Your task to perform on an android device: open app "Messenger Lite" (install if not already installed) Image 0: 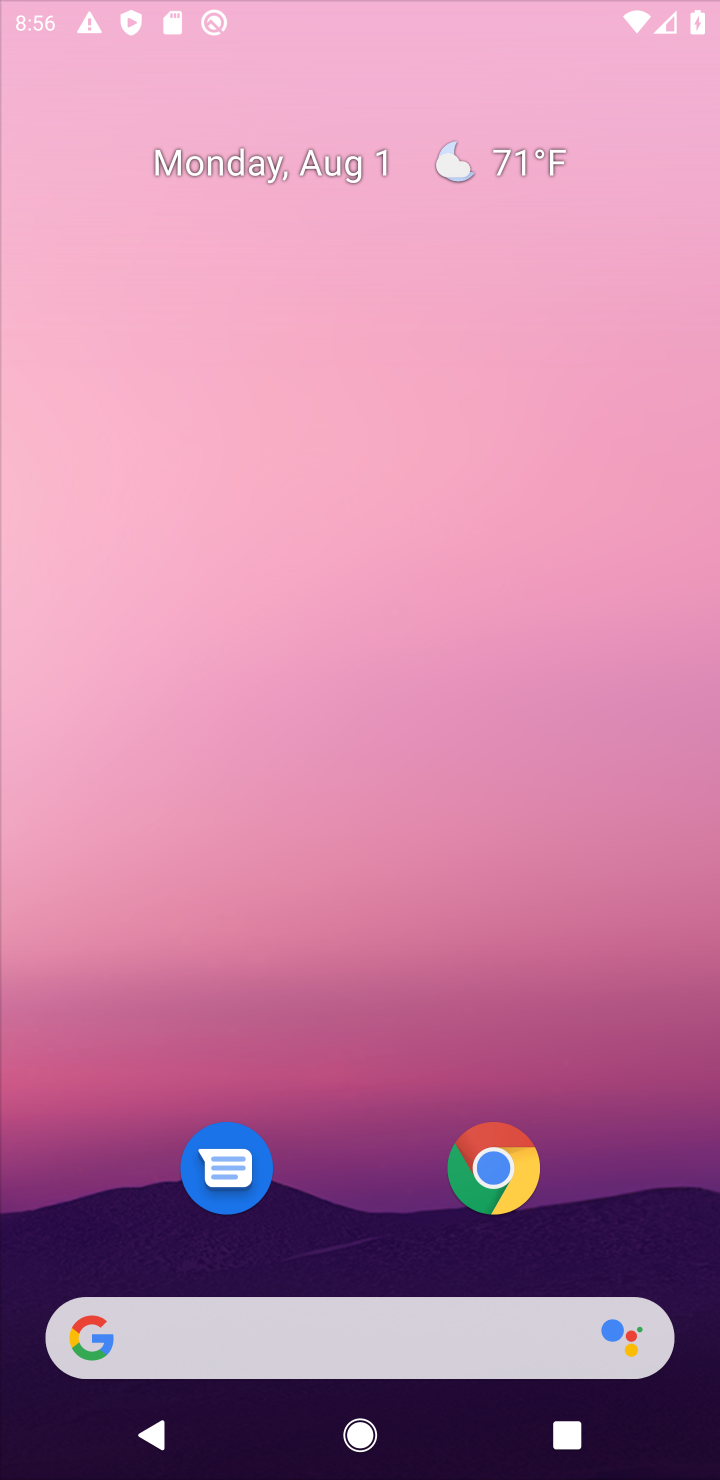
Step 0: press back button
Your task to perform on an android device: open app "Messenger Lite" (install if not already installed) Image 1: 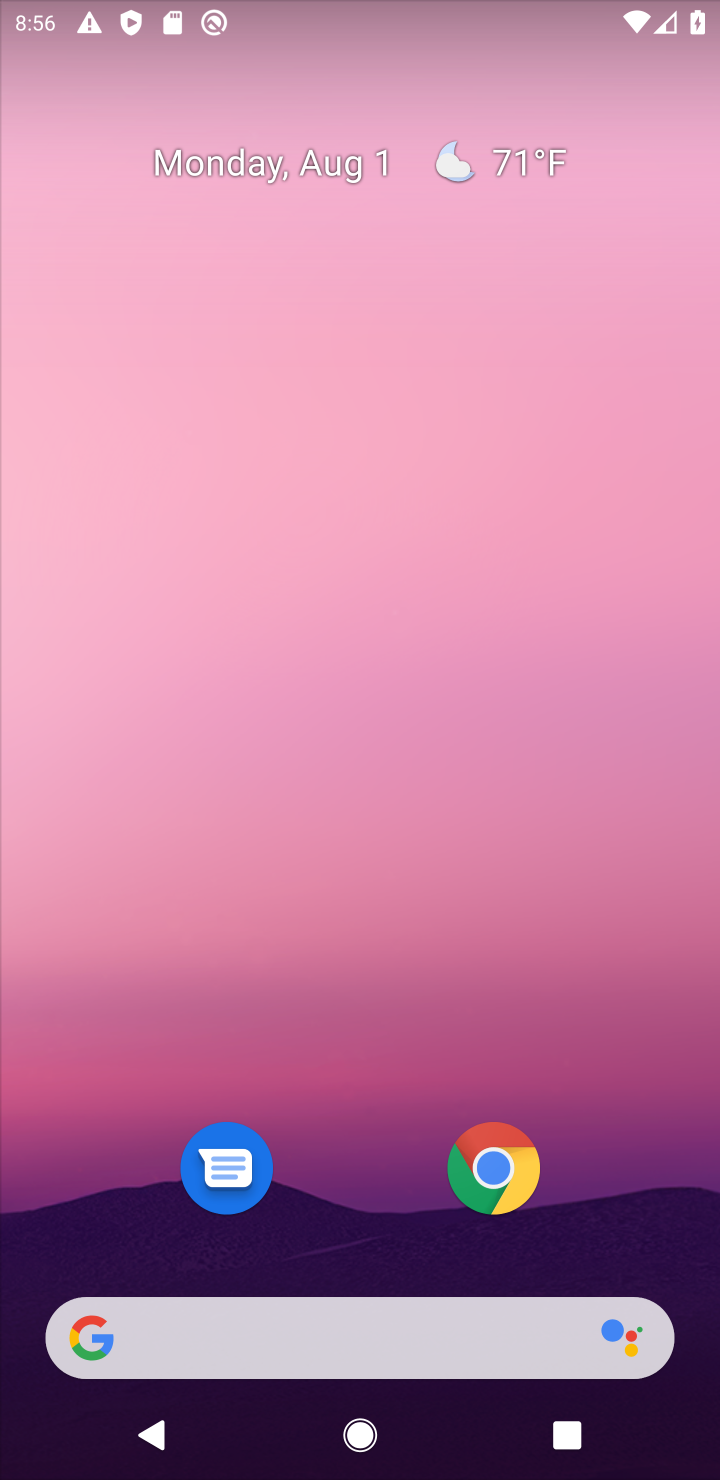
Step 1: drag from (375, 1270) to (361, 335)
Your task to perform on an android device: open app "Messenger Lite" (install if not already installed) Image 2: 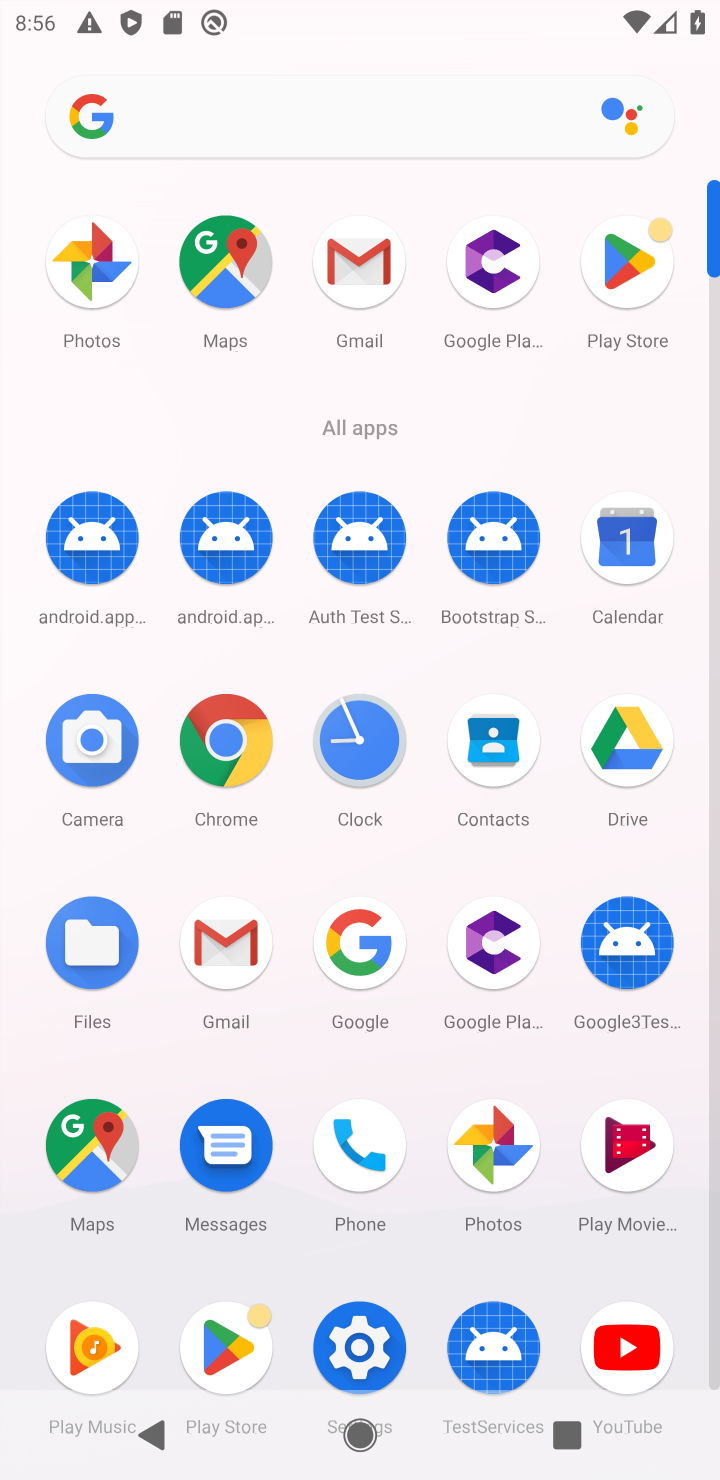
Step 2: click (231, 1321)
Your task to perform on an android device: open app "Messenger Lite" (install if not already installed) Image 3: 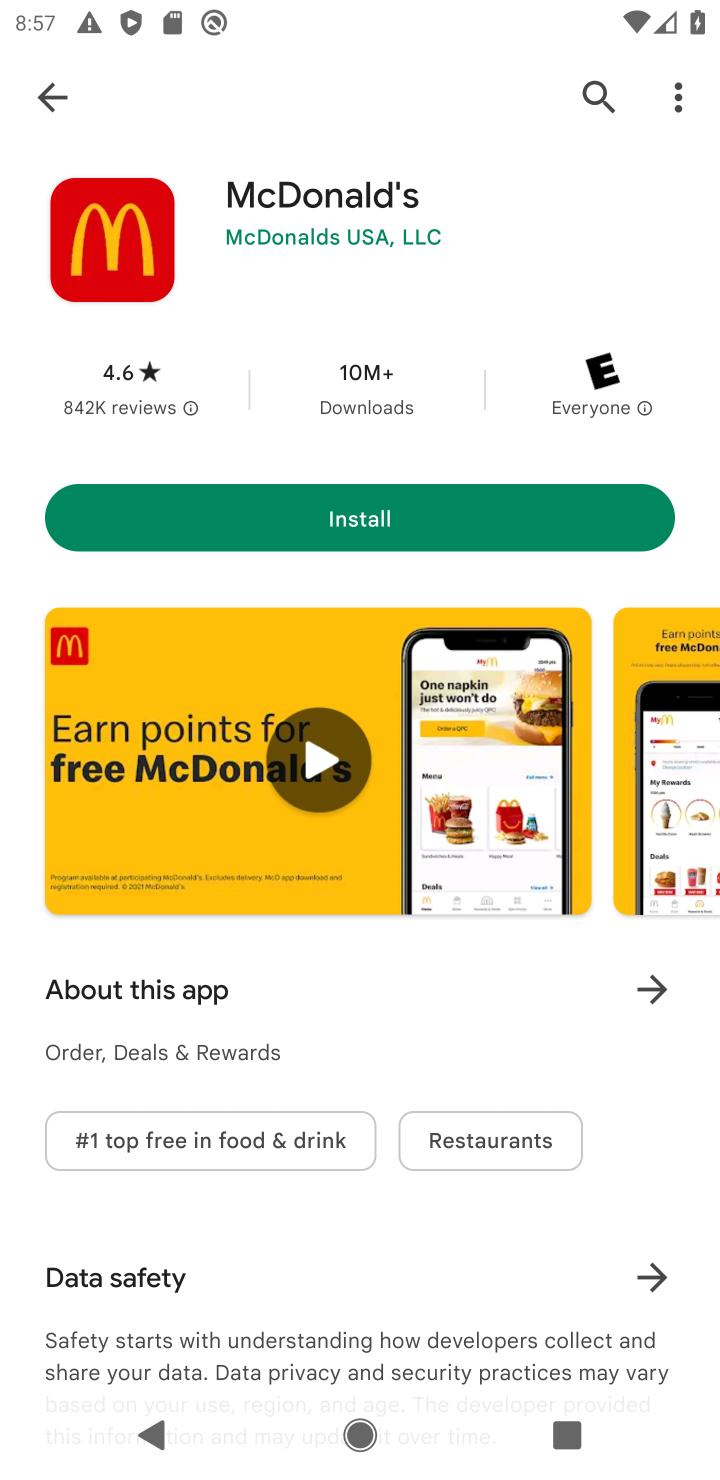
Step 3: click (15, 113)
Your task to perform on an android device: open app "Messenger Lite" (install if not already installed) Image 4: 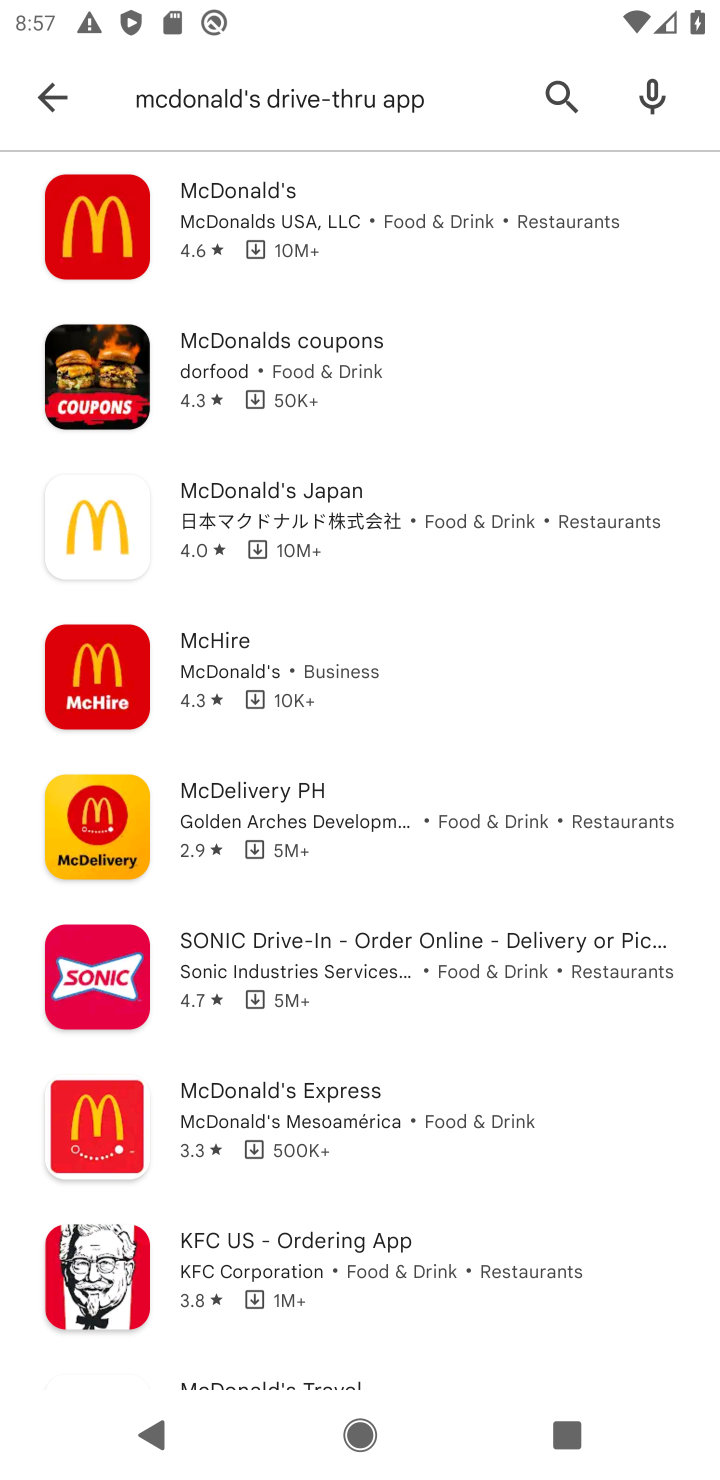
Step 4: click (35, 102)
Your task to perform on an android device: open app "Messenger Lite" (install if not already installed) Image 5: 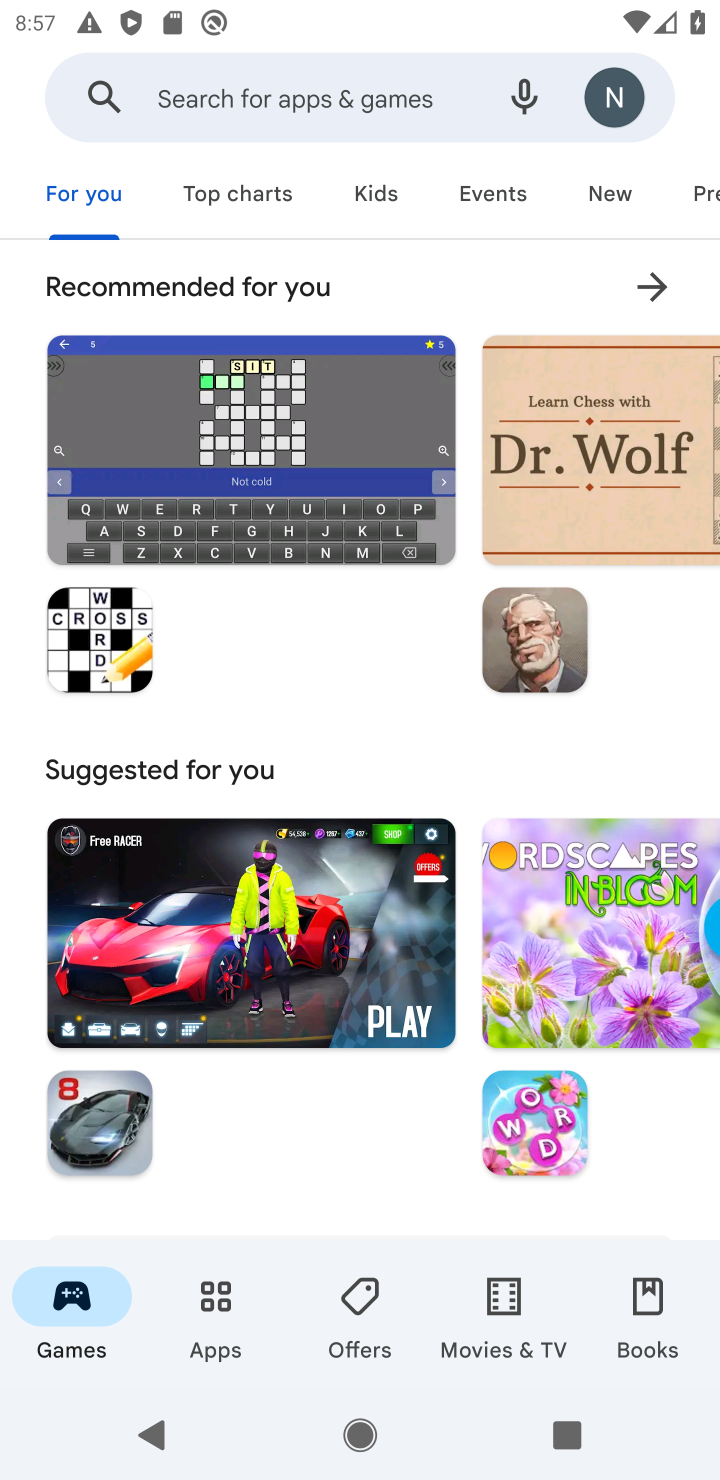
Step 5: click (404, 88)
Your task to perform on an android device: open app "Messenger Lite" (install if not already installed) Image 6: 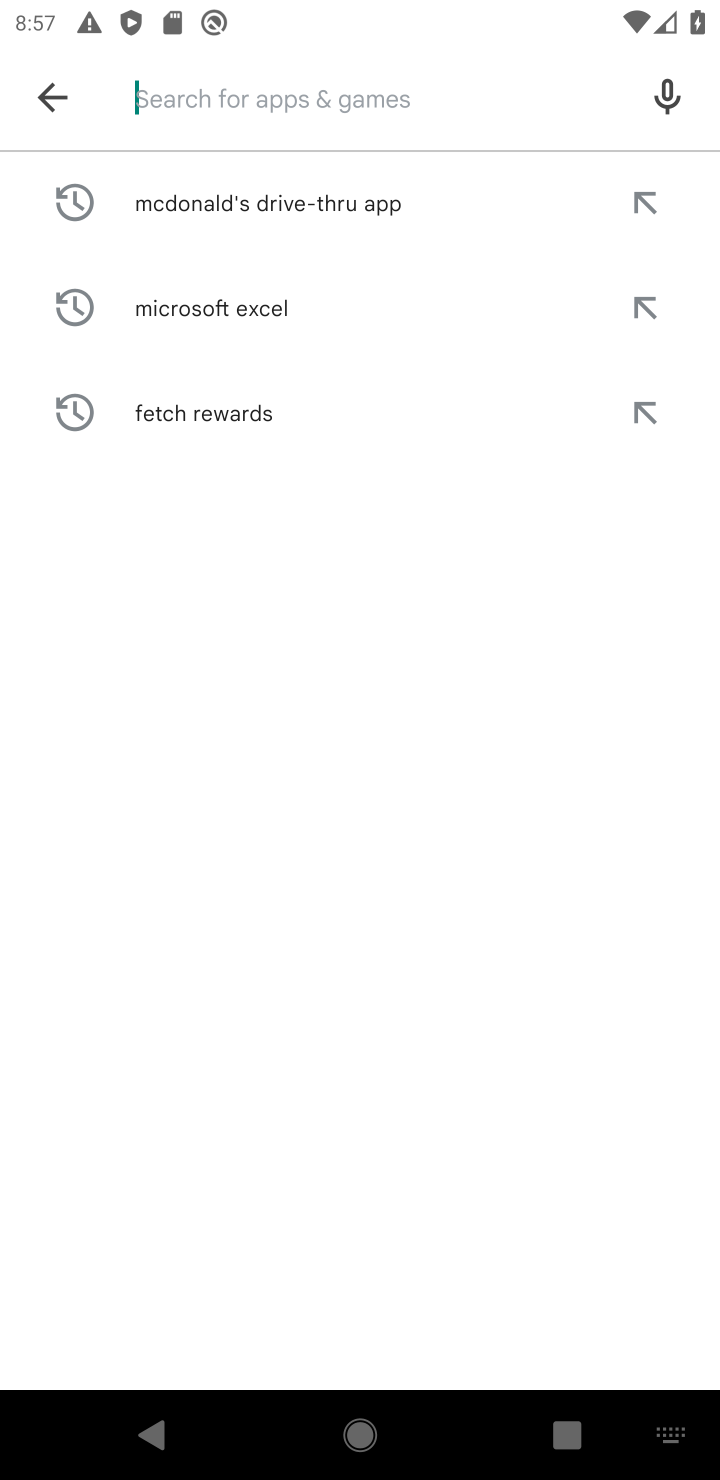
Step 6: type "Messenger Lite"
Your task to perform on an android device: open app "Messenger Lite" (install if not already installed) Image 7: 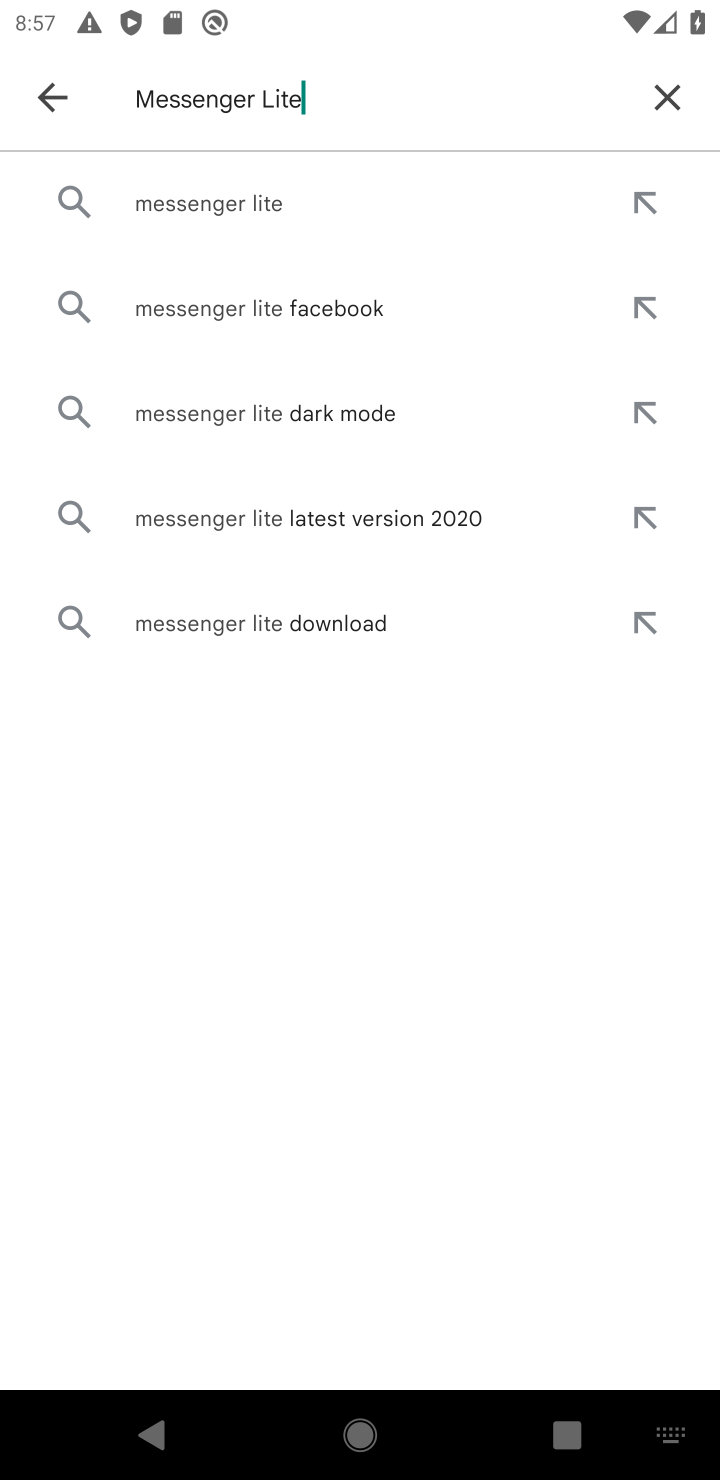
Step 7: click (262, 185)
Your task to perform on an android device: open app "Messenger Lite" (install if not already installed) Image 8: 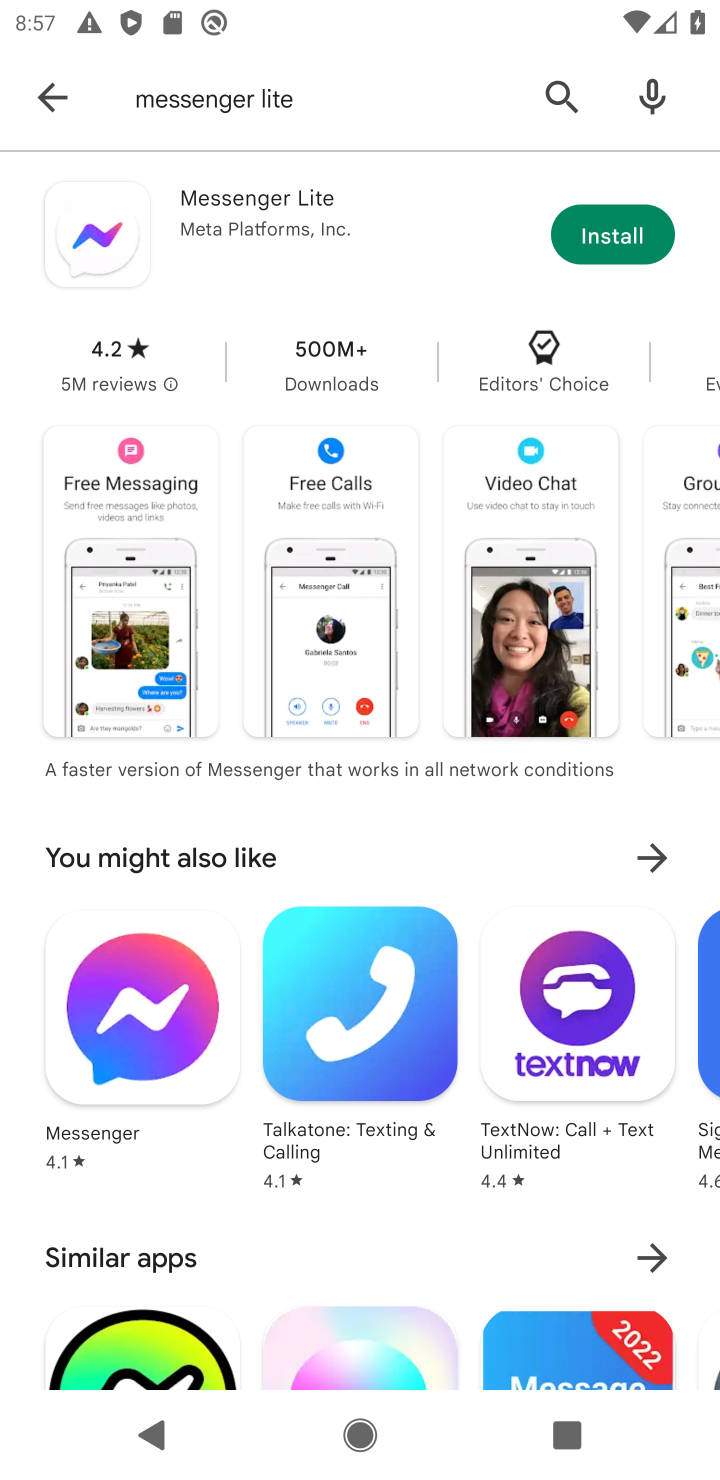
Step 8: click (607, 233)
Your task to perform on an android device: open app "Messenger Lite" (install if not already installed) Image 9: 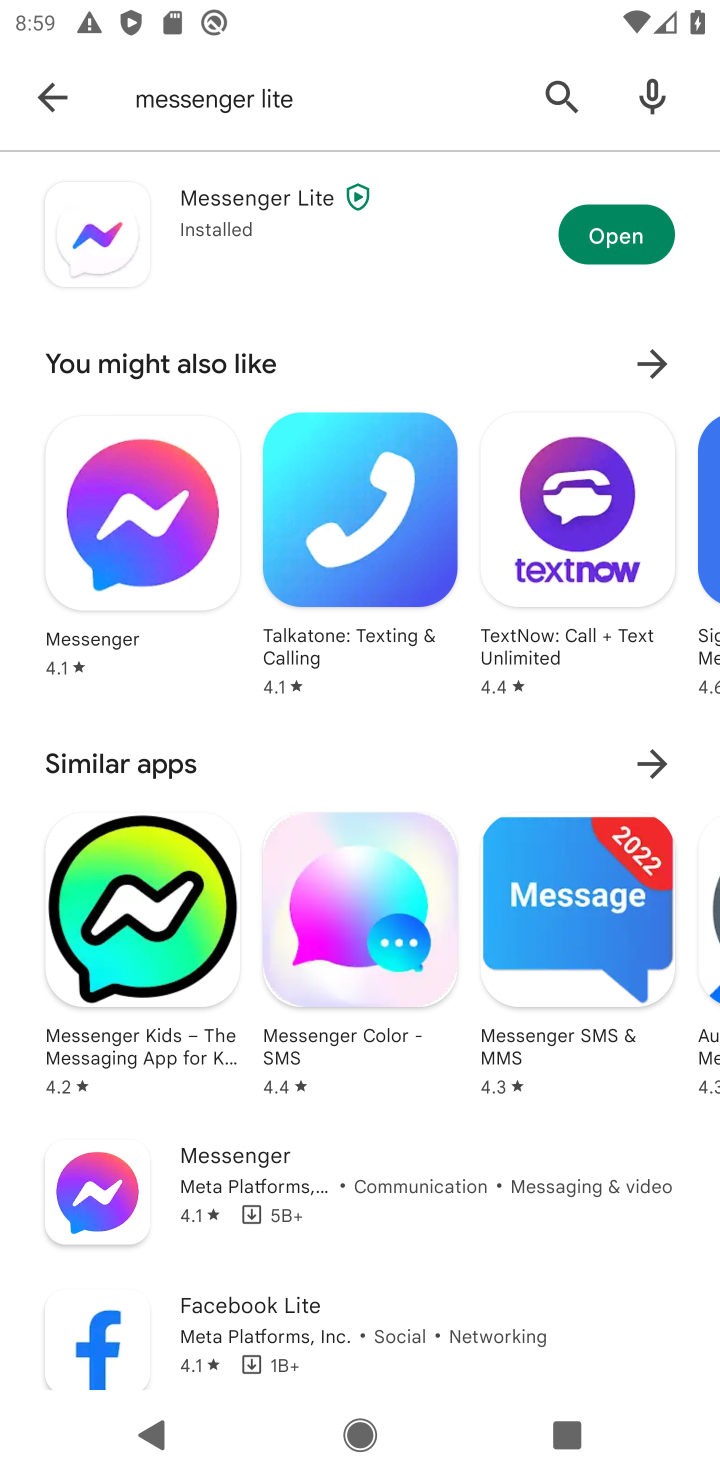
Step 9: click (579, 246)
Your task to perform on an android device: open app "Messenger Lite" (install if not already installed) Image 10: 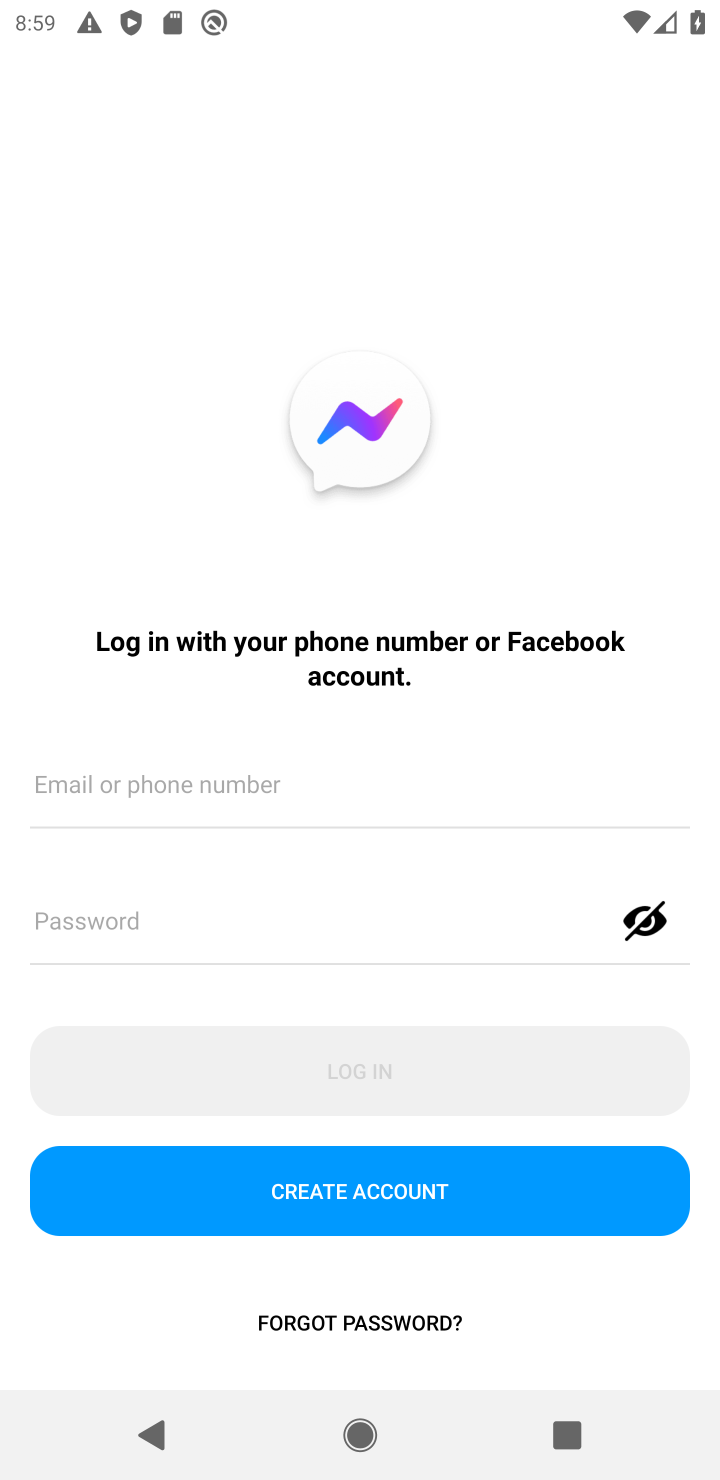
Step 10: task complete